Your task to perform on an android device: search for starred emails in the gmail app Image 0: 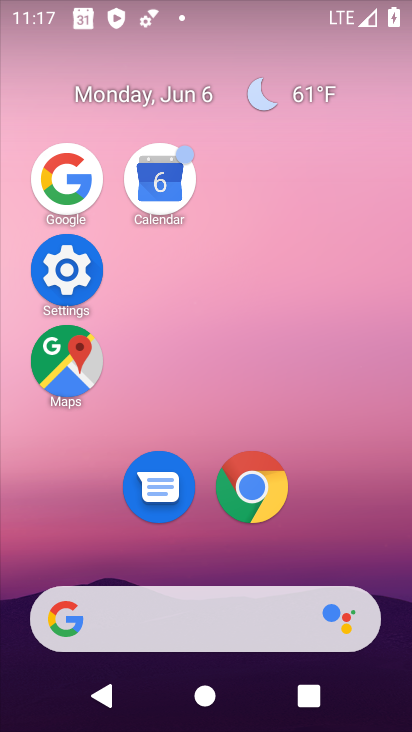
Step 0: drag from (321, 533) to (323, 125)
Your task to perform on an android device: search for starred emails in the gmail app Image 1: 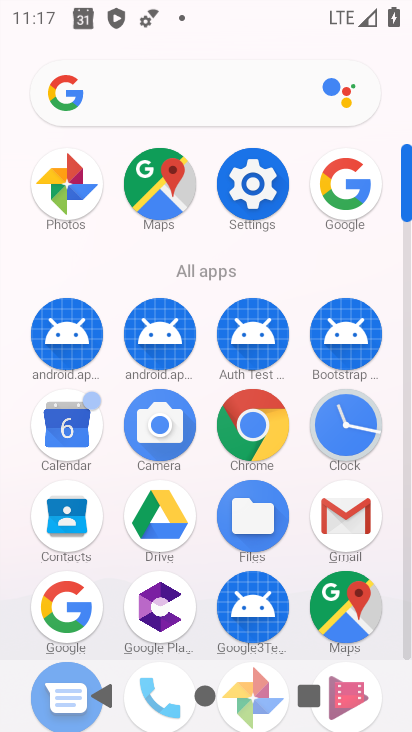
Step 1: click (325, 509)
Your task to perform on an android device: search for starred emails in the gmail app Image 2: 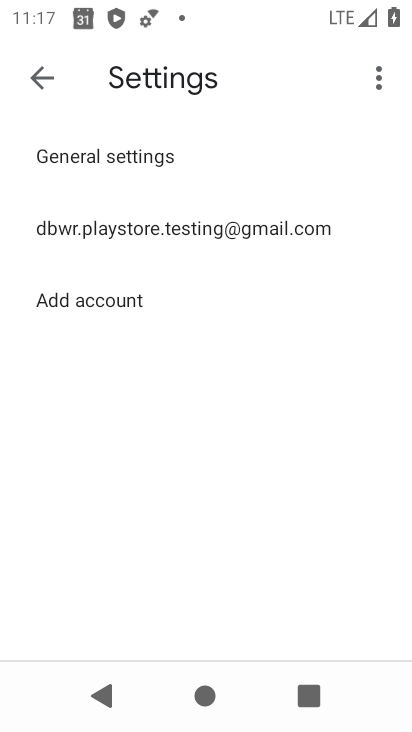
Step 2: click (42, 75)
Your task to perform on an android device: search for starred emails in the gmail app Image 3: 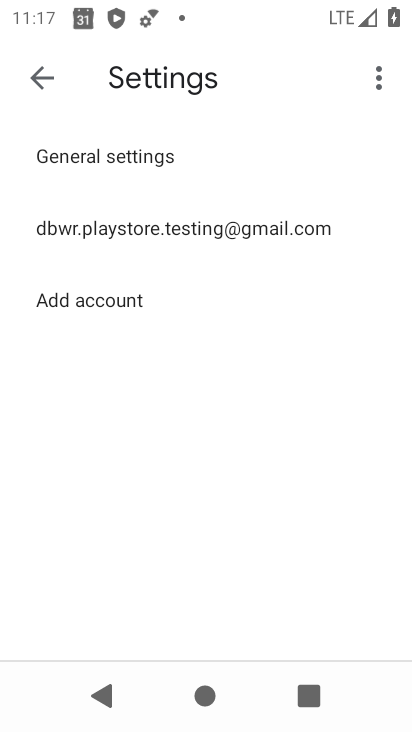
Step 3: click (42, 75)
Your task to perform on an android device: search for starred emails in the gmail app Image 4: 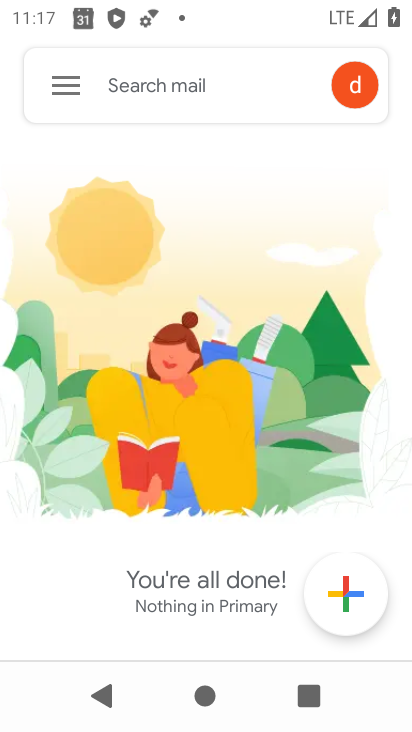
Step 4: click (47, 83)
Your task to perform on an android device: search for starred emails in the gmail app Image 5: 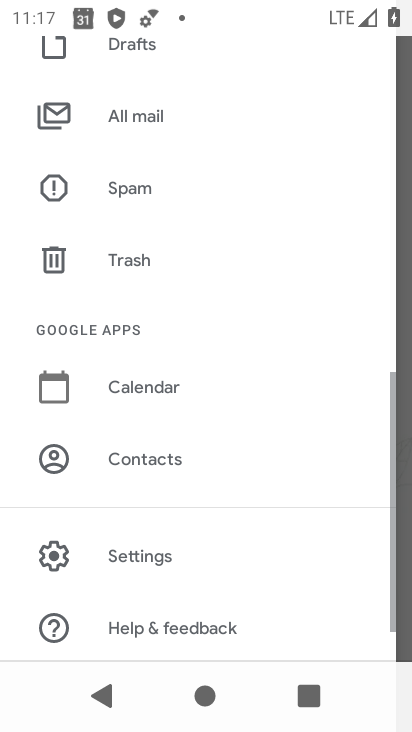
Step 5: drag from (209, 129) to (232, 398)
Your task to perform on an android device: search for starred emails in the gmail app Image 6: 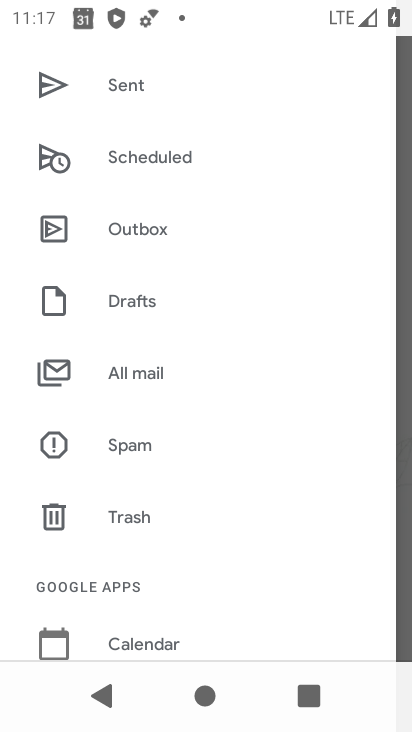
Step 6: drag from (231, 181) to (243, 475)
Your task to perform on an android device: search for starred emails in the gmail app Image 7: 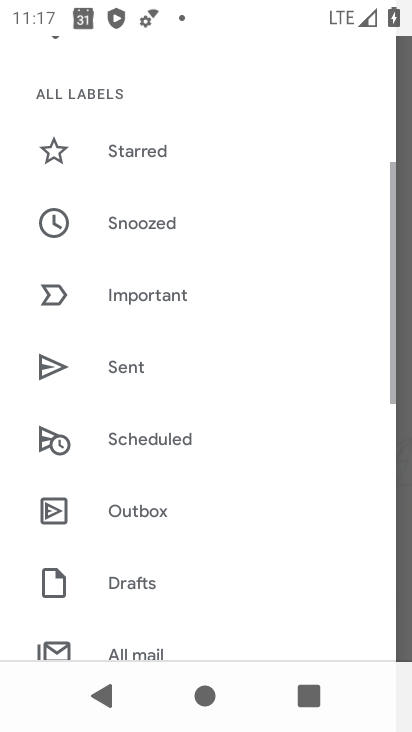
Step 7: click (198, 151)
Your task to perform on an android device: search for starred emails in the gmail app Image 8: 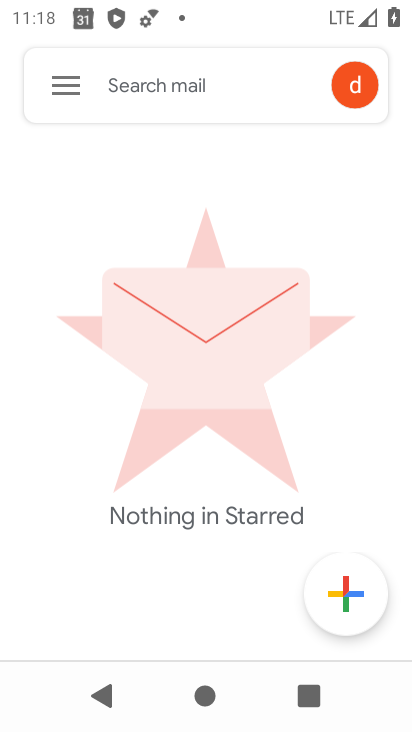
Step 8: task complete